Your task to perform on an android device: turn off notifications settings in the gmail app Image 0: 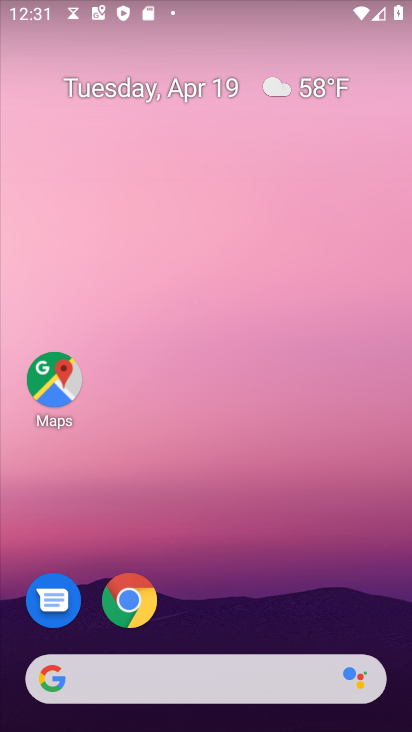
Step 0: drag from (180, 665) to (148, 137)
Your task to perform on an android device: turn off notifications settings in the gmail app Image 1: 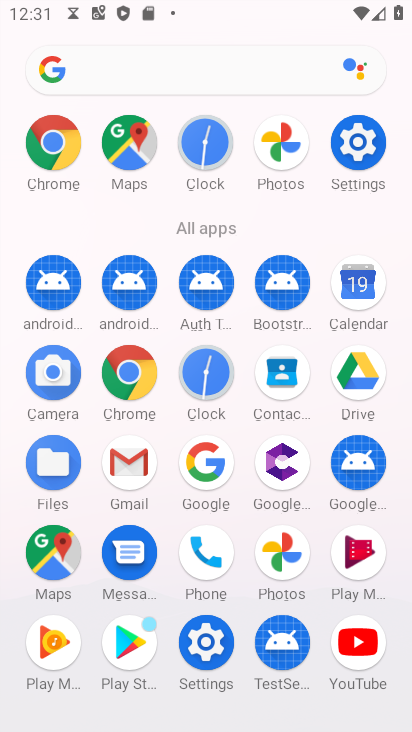
Step 1: click (115, 456)
Your task to perform on an android device: turn off notifications settings in the gmail app Image 2: 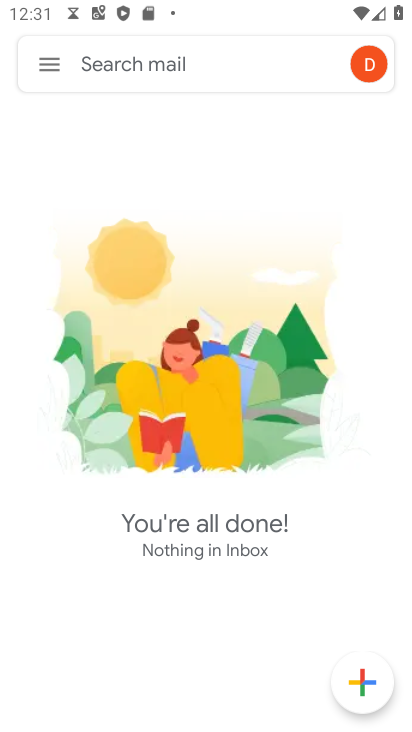
Step 2: click (52, 55)
Your task to perform on an android device: turn off notifications settings in the gmail app Image 3: 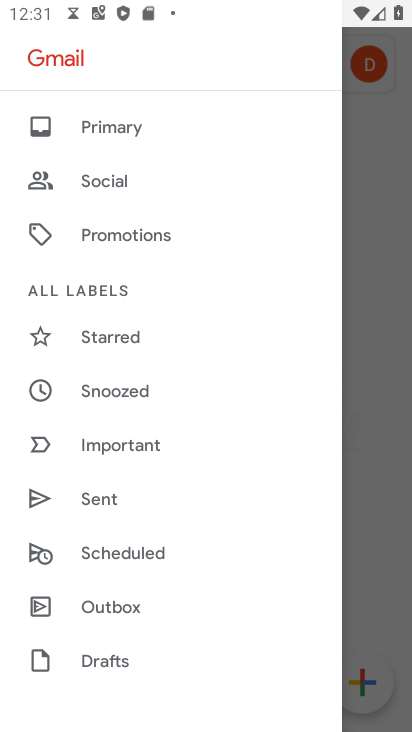
Step 3: drag from (156, 617) to (102, 208)
Your task to perform on an android device: turn off notifications settings in the gmail app Image 4: 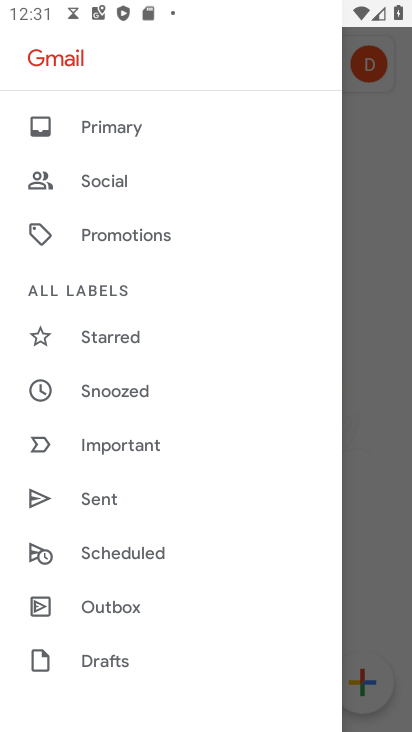
Step 4: drag from (118, 557) to (101, 174)
Your task to perform on an android device: turn off notifications settings in the gmail app Image 5: 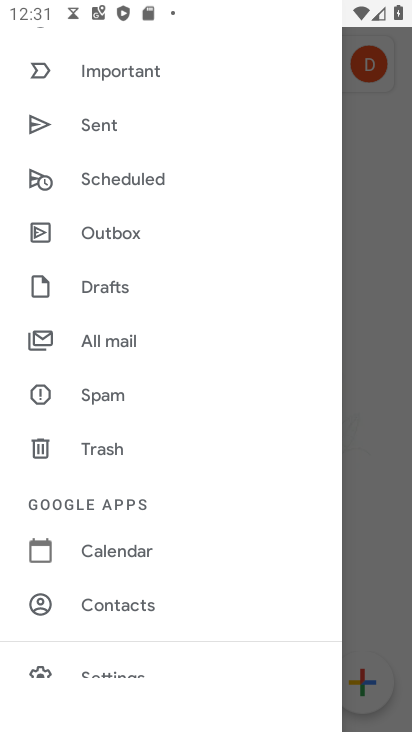
Step 5: drag from (153, 580) to (110, 308)
Your task to perform on an android device: turn off notifications settings in the gmail app Image 6: 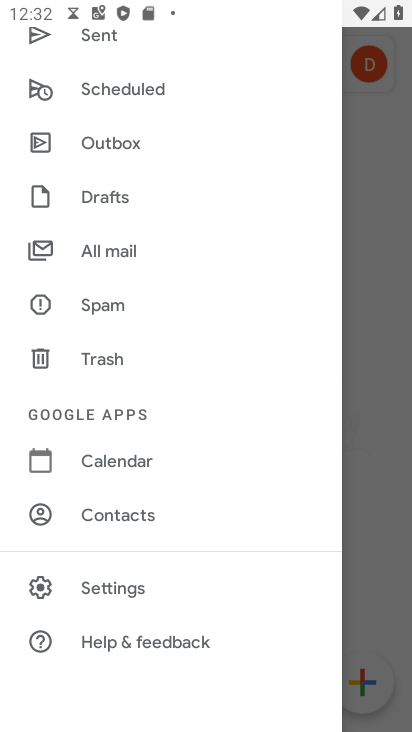
Step 6: click (141, 591)
Your task to perform on an android device: turn off notifications settings in the gmail app Image 7: 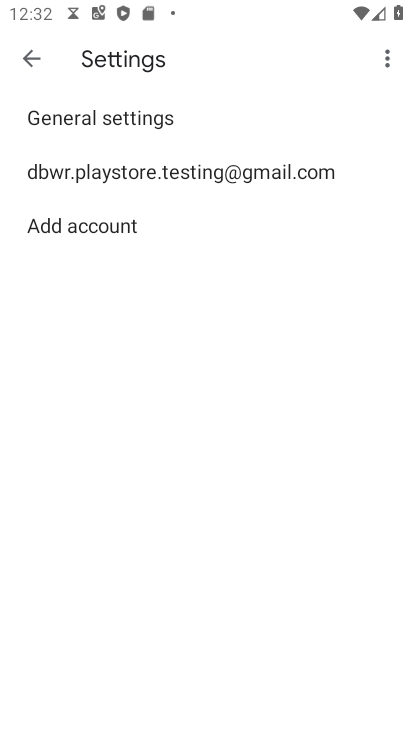
Step 7: click (215, 179)
Your task to perform on an android device: turn off notifications settings in the gmail app Image 8: 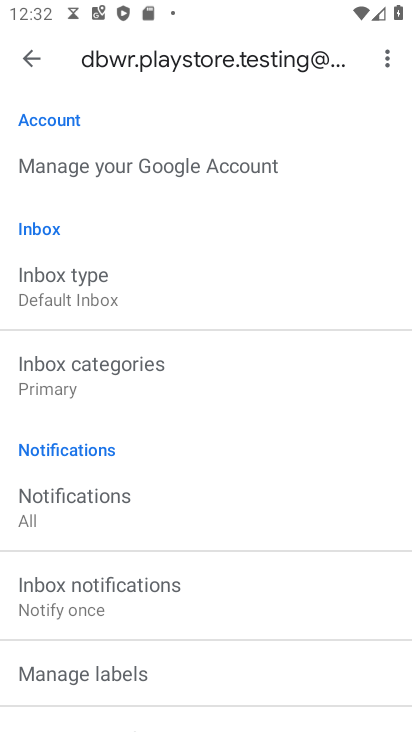
Step 8: drag from (193, 607) to (135, 212)
Your task to perform on an android device: turn off notifications settings in the gmail app Image 9: 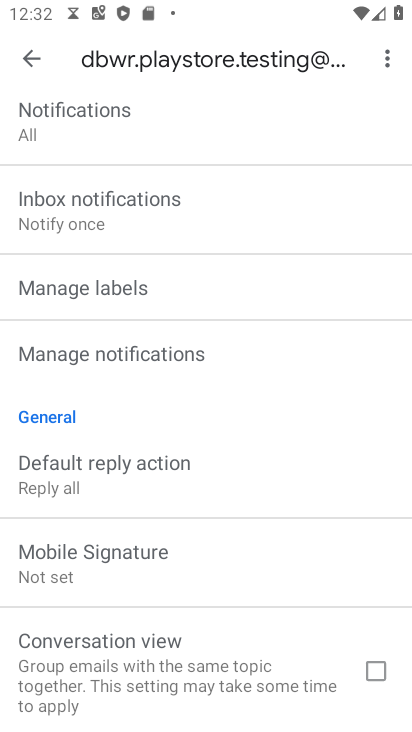
Step 9: click (153, 363)
Your task to perform on an android device: turn off notifications settings in the gmail app Image 10: 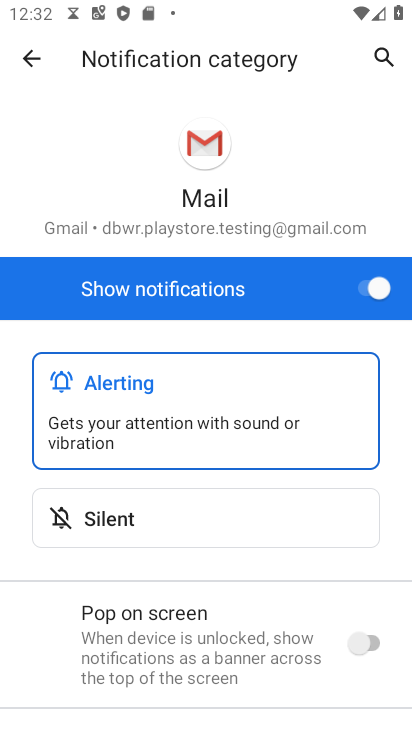
Step 10: click (390, 283)
Your task to perform on an android device: turn off notifications settings in the gmail app Image 11: 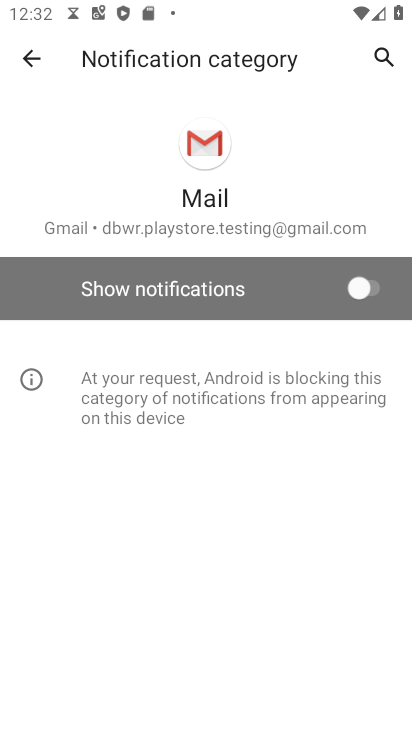
Step 11: task complete